Your task to perform on an android device: allow notifications from all sites in the chrome app Image 0: 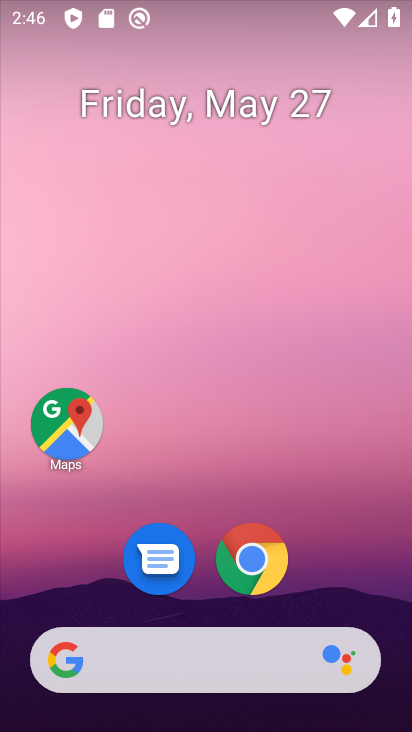
Step 0: click (266, 552)
Your task to perform on an android device: allow notifications from all sites in the chrome app Image 1: 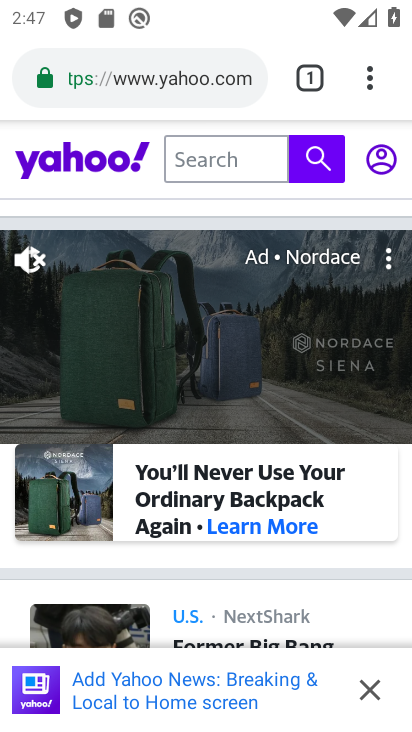
Step 1: click (371, 688)
Your task to perform on an android device: allow notifications from all sites in the chrome app Image 2: 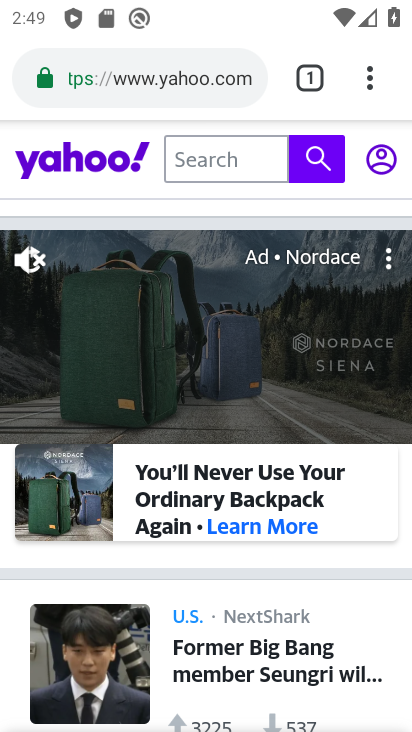
Step 2: click (367, 75)
Your task to perform on an android device: allow notifications from all sites in the chrome app Image 3: 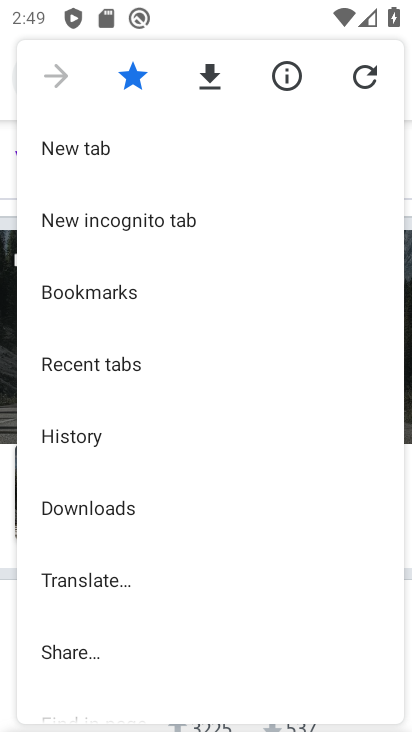
Step 3: drag from (138, 665) to (191, 24)
Your task to perform on an android device: allow notifications from all sites in the chrome app Image 4: 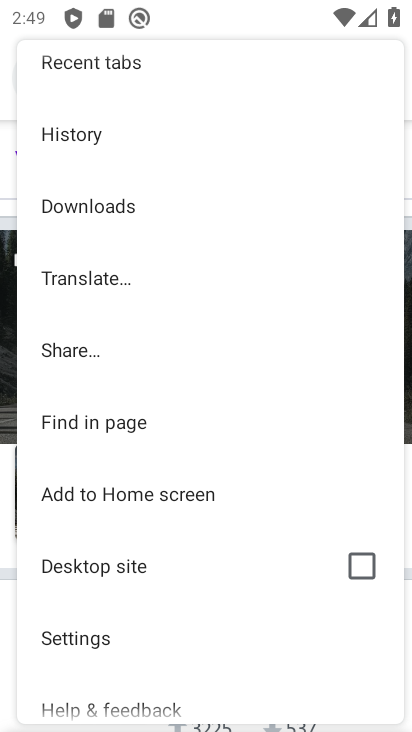
Step 4: click (106, 634)
Your task to perform on an android device: allow notifications from all sites in the chrome app Image 5: 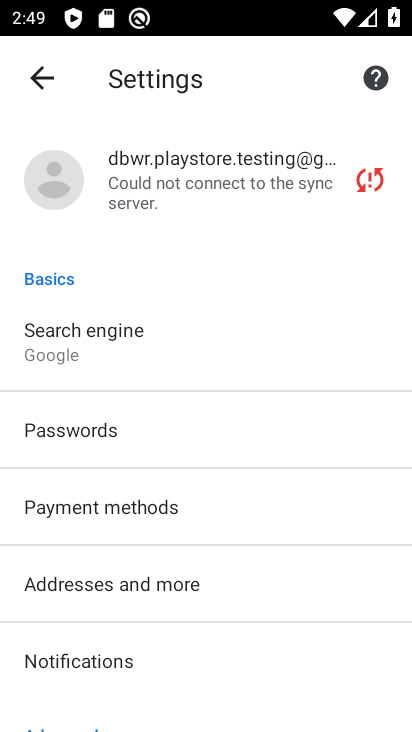
Step 5: drag from (182, 627) to (173, 194)
Your task to perform on an android device: allow notifications from all sites in the chrome app Image 6: 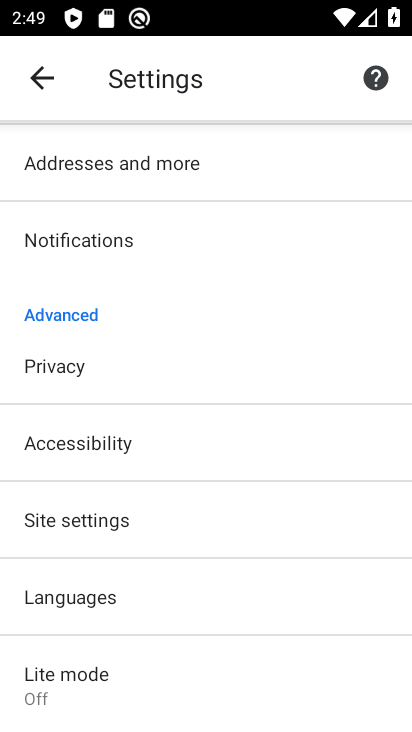
Step 6: drag from (157, 671) to (97, 193)
Your task to perform on an android device: allow notifications from all sites in the chrome app Image 7: 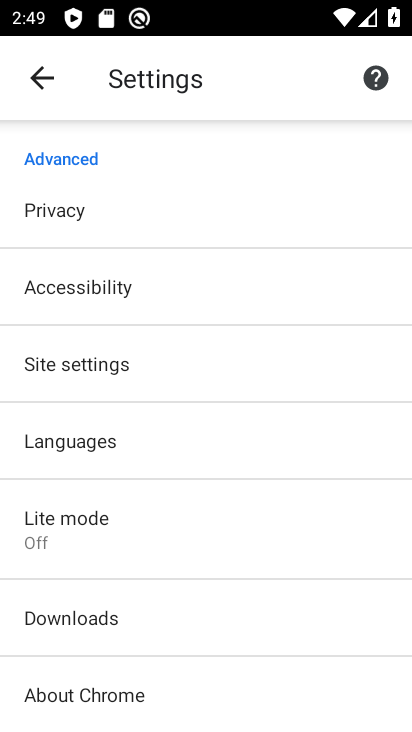
Step 7: click (112, 355)
Your task to perform on an android device: allow notifications from all sites in the chrome app Image 8: 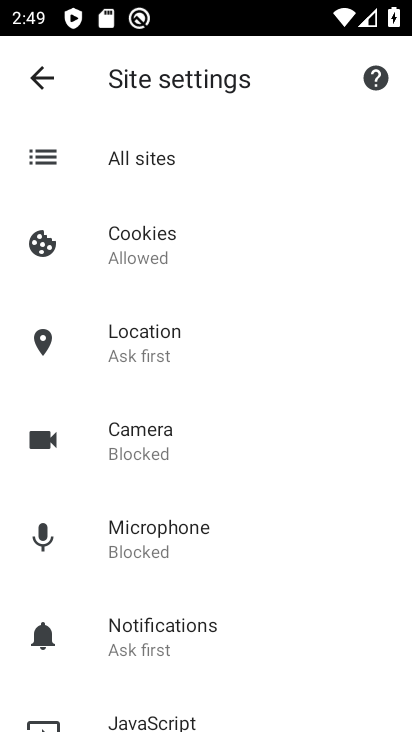
Step 8: click (188, 637)
Your task to perform on an android device: allow notifications from all sites in the chrome app Image 9: 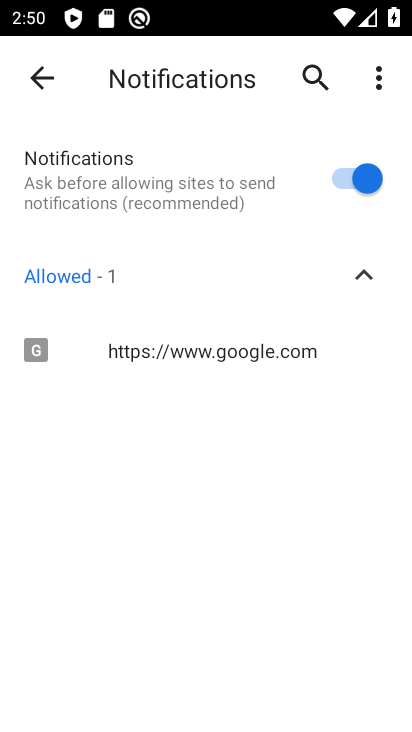
Step 9: click (39, 60)
Your task to perform on an android device: allow notifications from all sites in the chrome app Image 10: 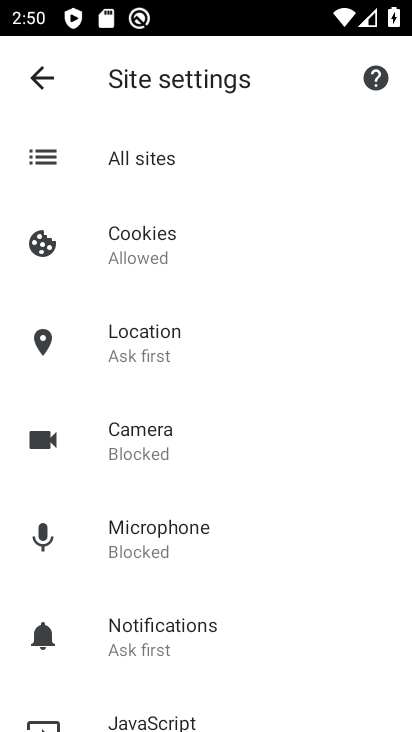
Step 10: task complete